Your task to perform on an android device: turn smart compose on in the gmail app Image 0: 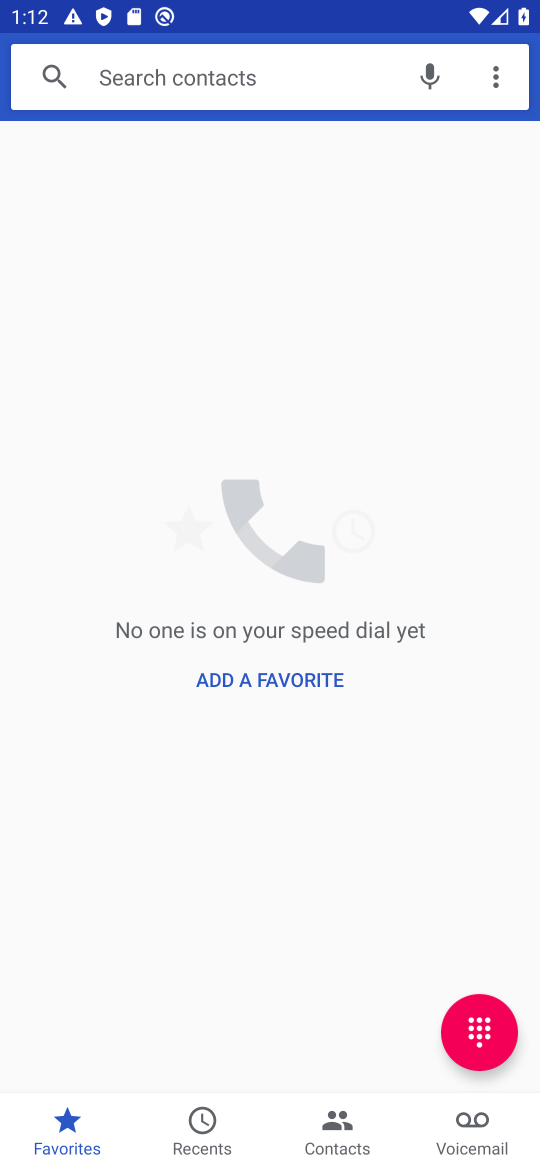
Step 0: press home button
Your task to perform on an android device: turn smart compose on in the gmail app Image 1: 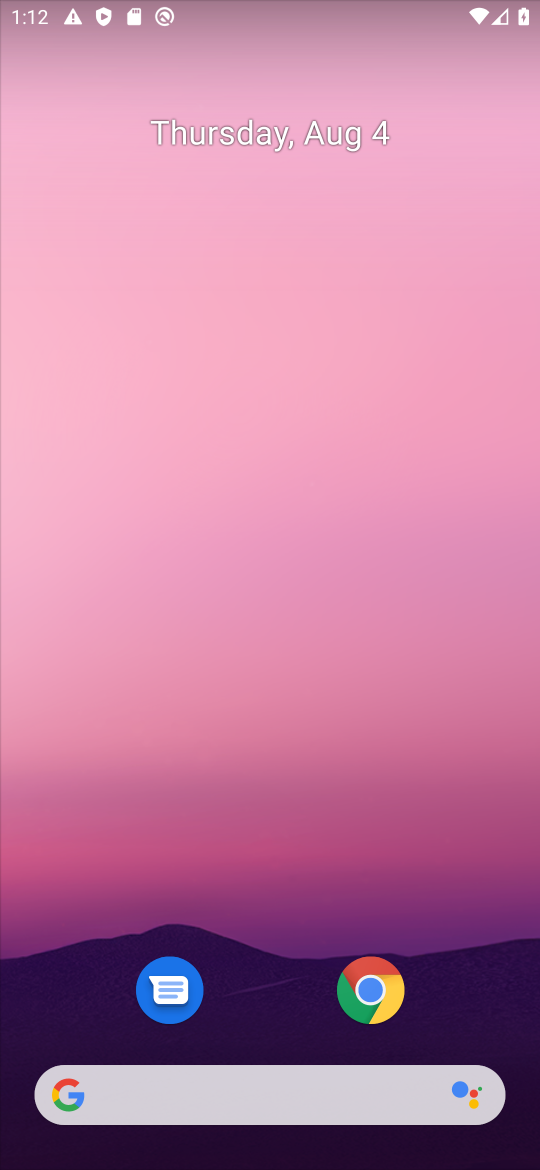
Step 1: drag from (279, 1041) to (254, 288)
Your task to perform on an android device: turn smart compose on in the gmail app Image 2: 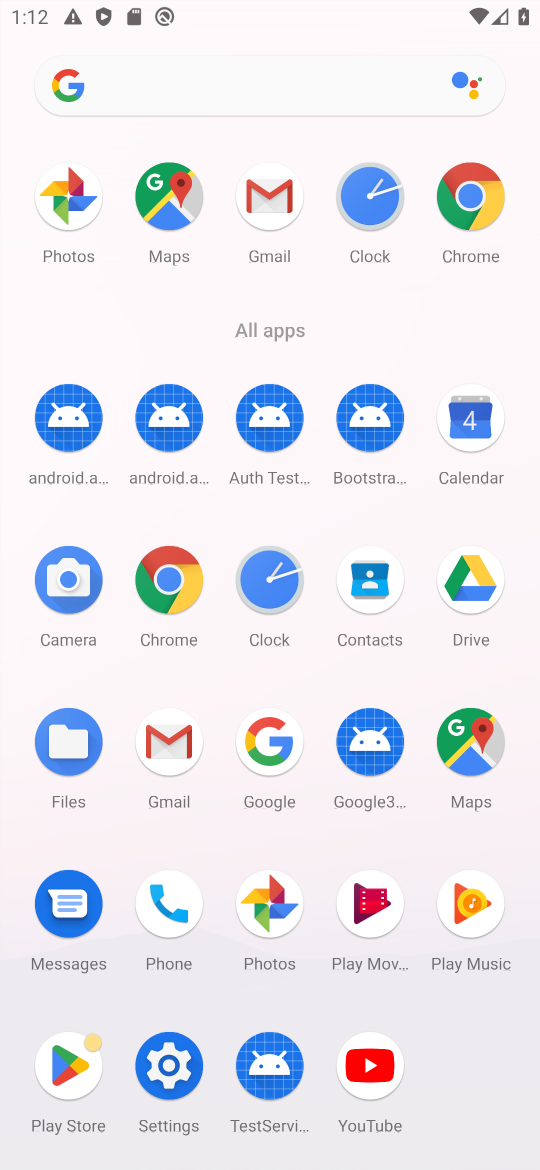
Step 2: click (289, 207)
Your task to perform on an android device: turn smart compose on in the gmail app Image 3: 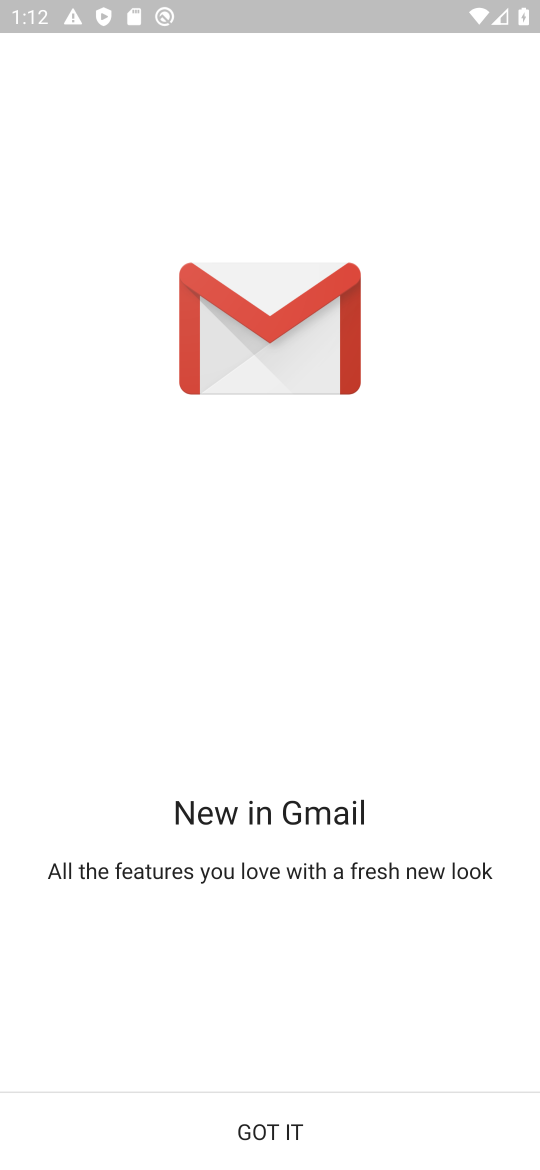
Step 3: click (290, 1137)
Your task to perform on an android device: turn smart compose on in the gmail app Image 4: 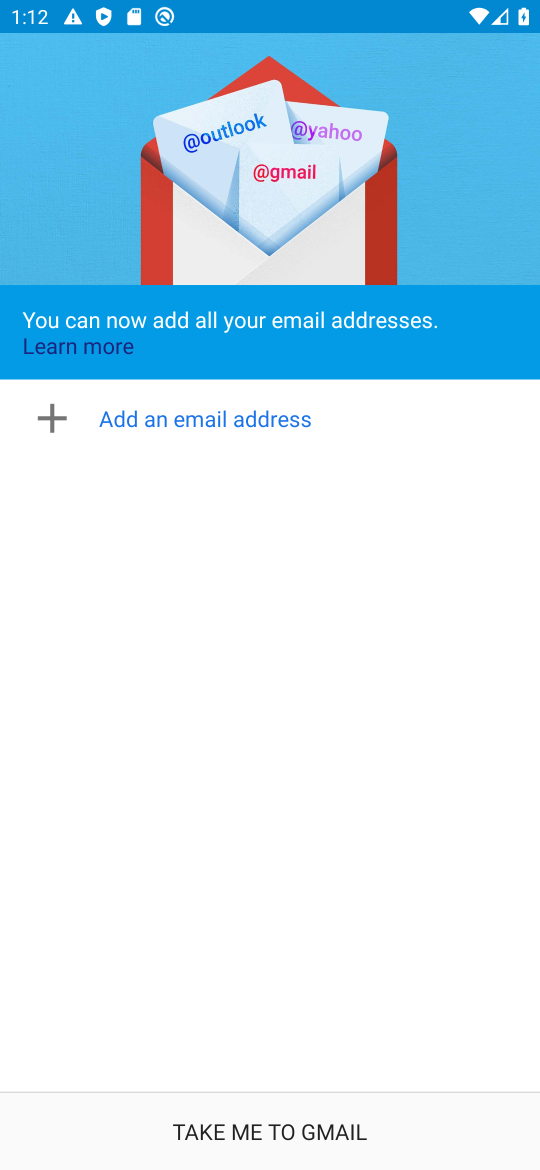
Step 4: click (290, 1137)
Your task to perform on an android device: turn smart compose on in the gmail app Image 5: 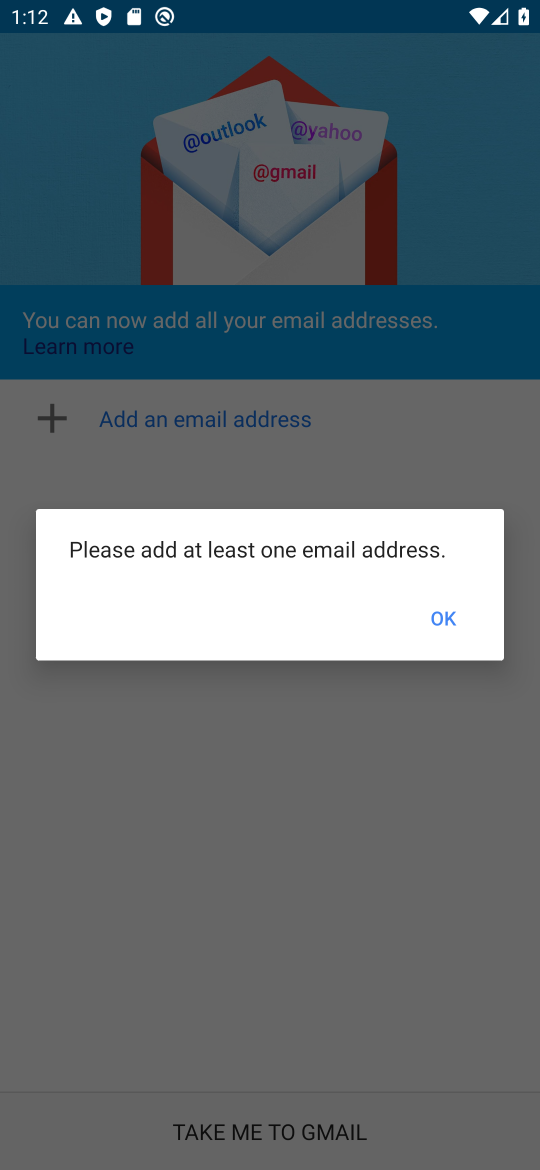
Step 5: click (430, 604)
Your task to perform on an android device: turn smart compose on in the gmail app Image 6: 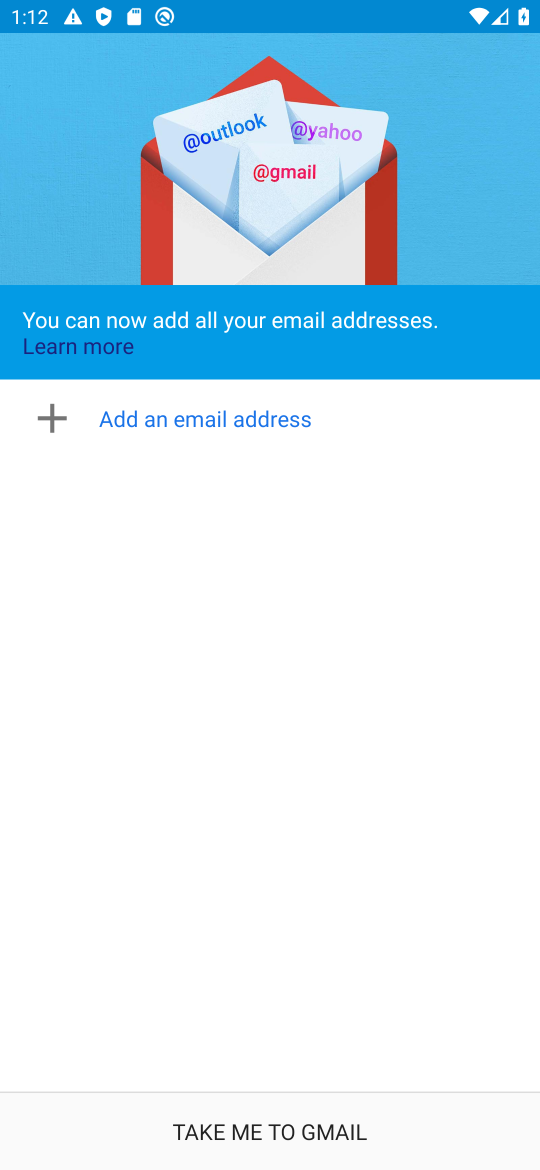
Step 6: task complete